Your task to perform on an android device: turn off wifi Image 0: 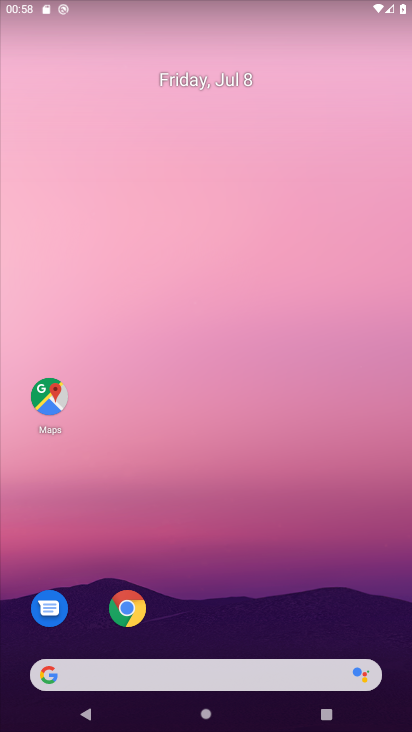
Step 0: drag from (245, 620) to (243, 112)
Your task to perform on an android device: turn off wifi Image 1: 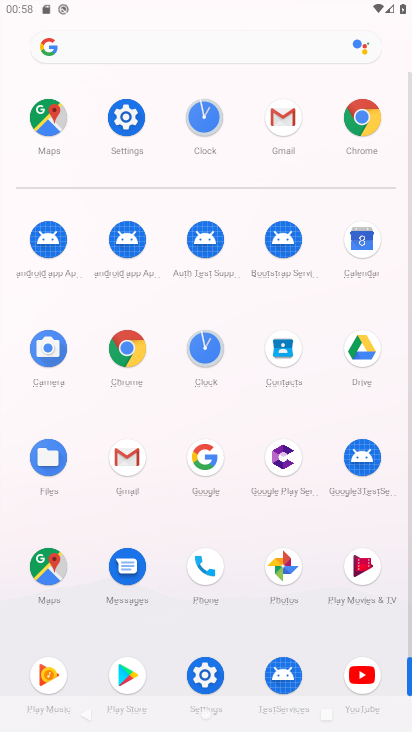
Step 1: click (126, 114)
Your task to perform on an android device: turn off wifi Image 2: 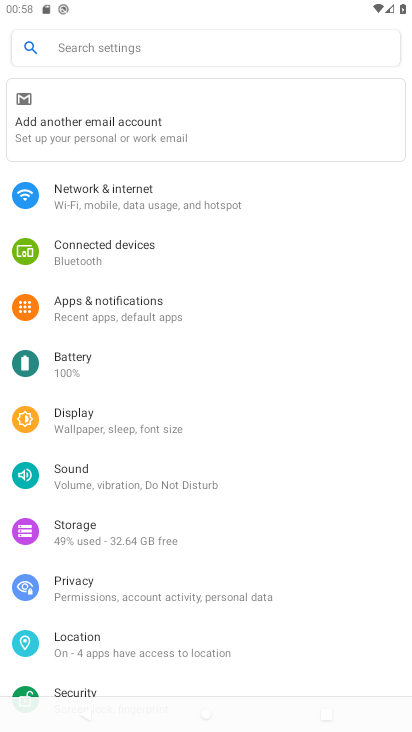
Step 2: click (147, 187)
Your task to perform on an android device: turn off wifi Image 3: 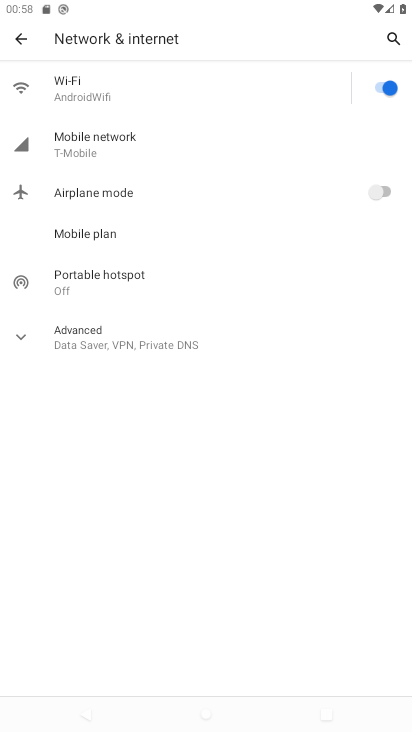
Step 3: click (373, 91)
Your task to perform on an android device: turn off wifi Image 4: 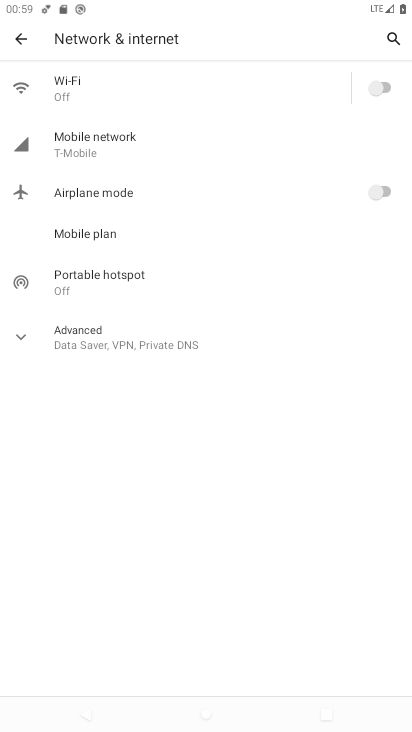
Step 4: task complete